Your task to perform on an android device: Find coffee shops on Maps Image 0: 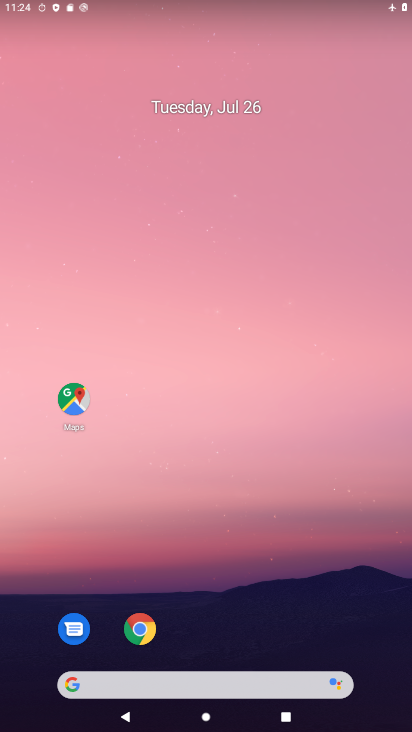
Step 0: drag from (332, 610) to (188, 73)
Your task to perform on an android device: Find coffee shops on Maps Image 1: 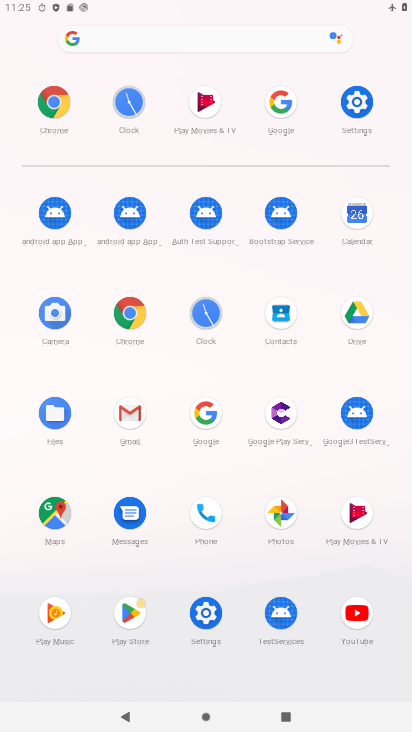
Step 1: click (64, 510)
Your task to perform on an android device: Find coffee shops on Maps Image 2: 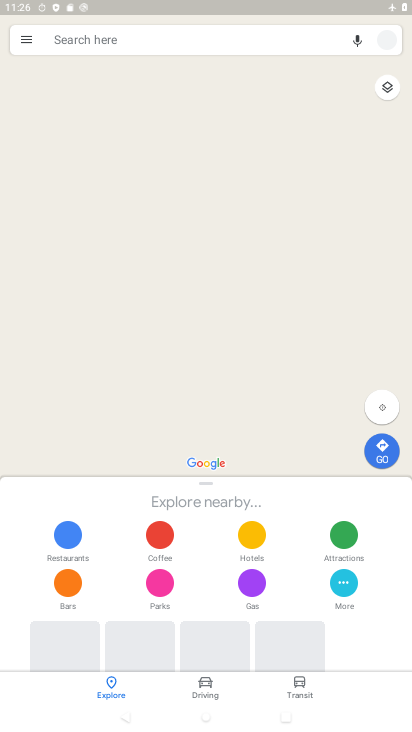
Step 2: click (170, 41)
Your task to perform on an android device: Find coffee shops on Maps Image 3: 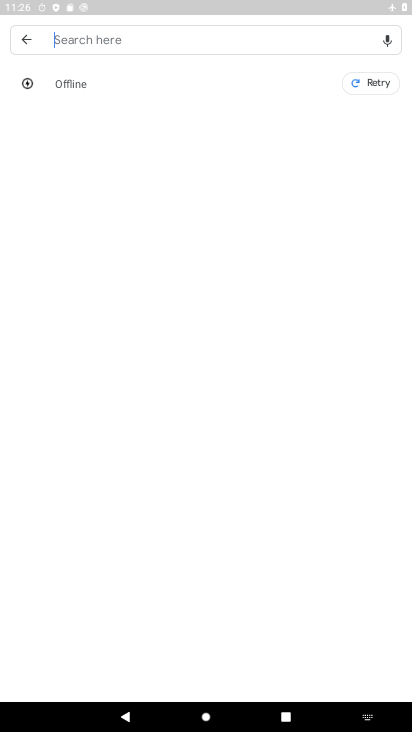
Step 3: type "coffee"
Your task to perform on an android device: Find coffee shops on Maps Image 4: 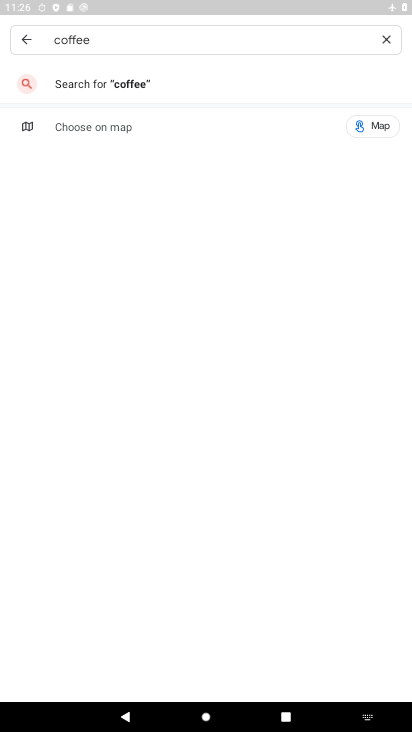
Step 4: task complete